Your task to perform on an android device: open app "Messages" Image 0: 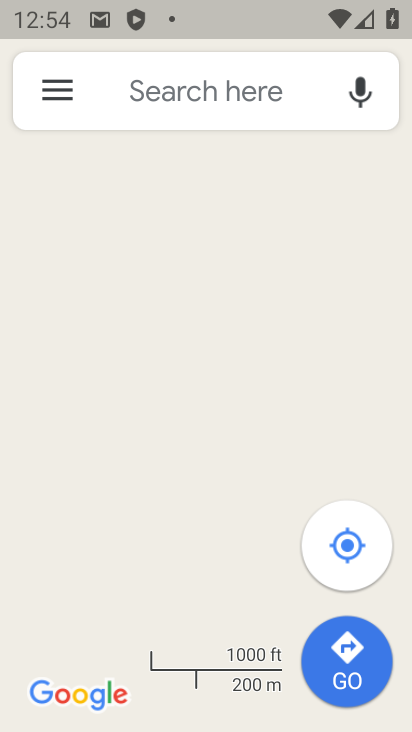
Step 0: press back button
Your task to perform on an android device: open app "Messages" Image 1: 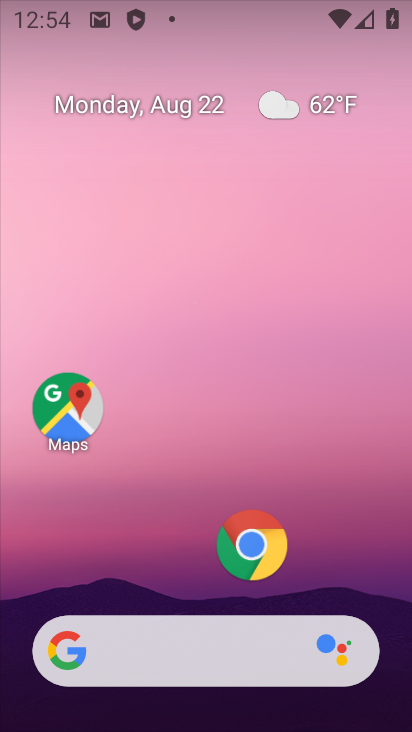
Step 1: drag from (175, 586) to (284, 0)
Your task to perform on an android device: open app "Messages" Image 2: 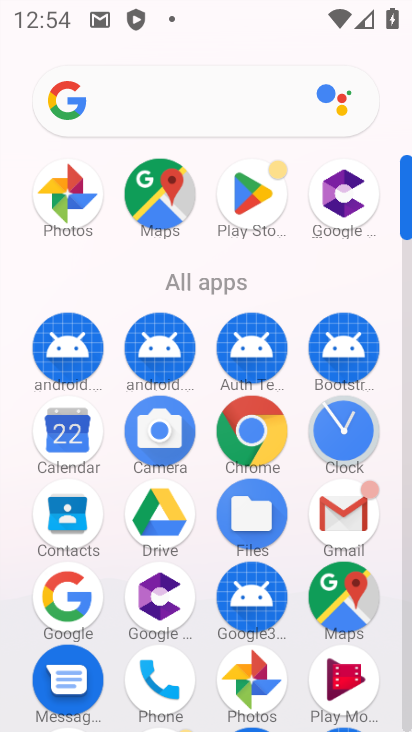
Step 2: click (89, 682)
Your task to perform on an android device: open app "Messages" Image 3: 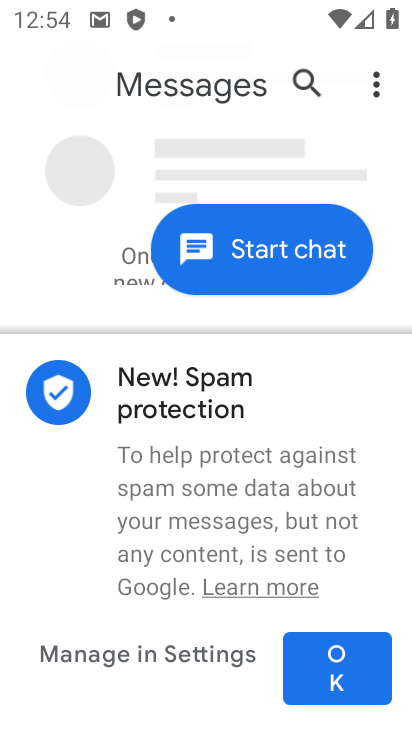
Step 3: task complete